Your task to perform on an android device: Open sound settings Image 0: 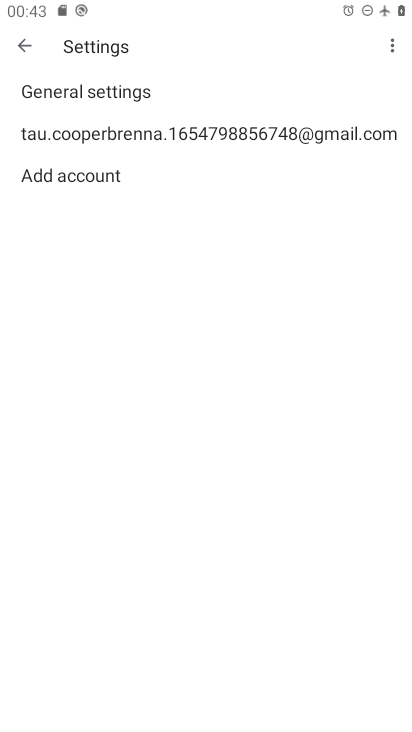
Step 0: press home button
Your task to perform on an android device: Open sound settings Image 1: 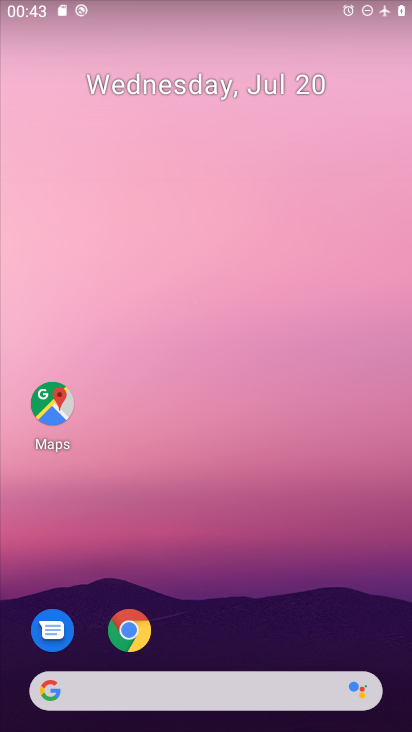
Step 1: drag from (209, 612) to (241, 97)
Your task to perform on an android device: Open sound settings Image 2: 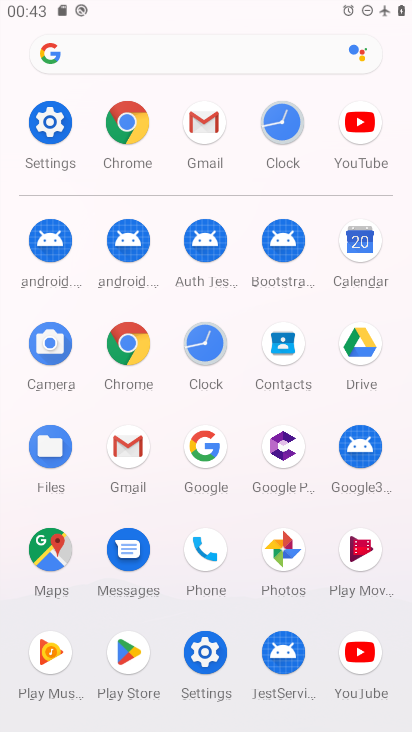
Step 2: click (49, 130)
Your task to perform on an android device: Open sound settings Image 3: 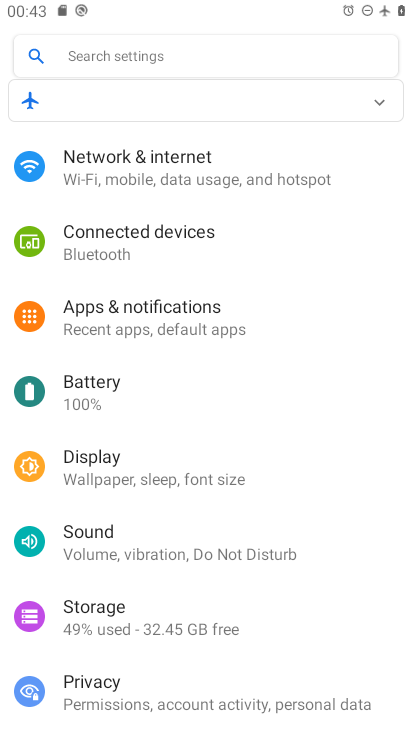
Step 3: click (106, 519)
Your task to perform on an android device: Open sound settings Image 4: 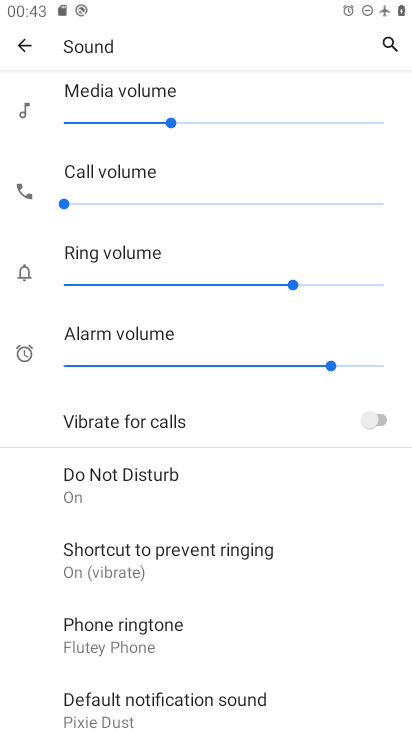
Step 4: task complete